Your task to perform on an android device: toggle location history Image 0: 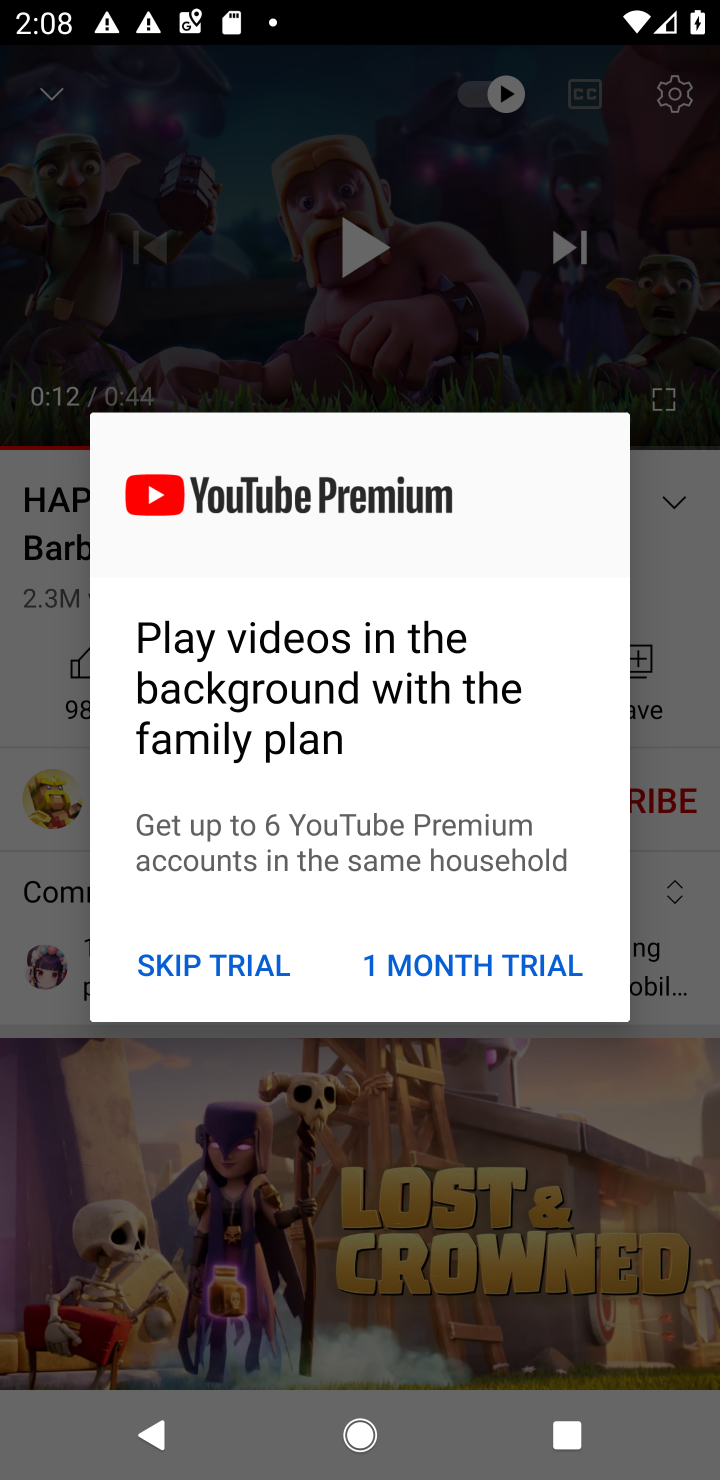
Step 0: press home button
Your task to perform on an android device: toggle location history Image 1: 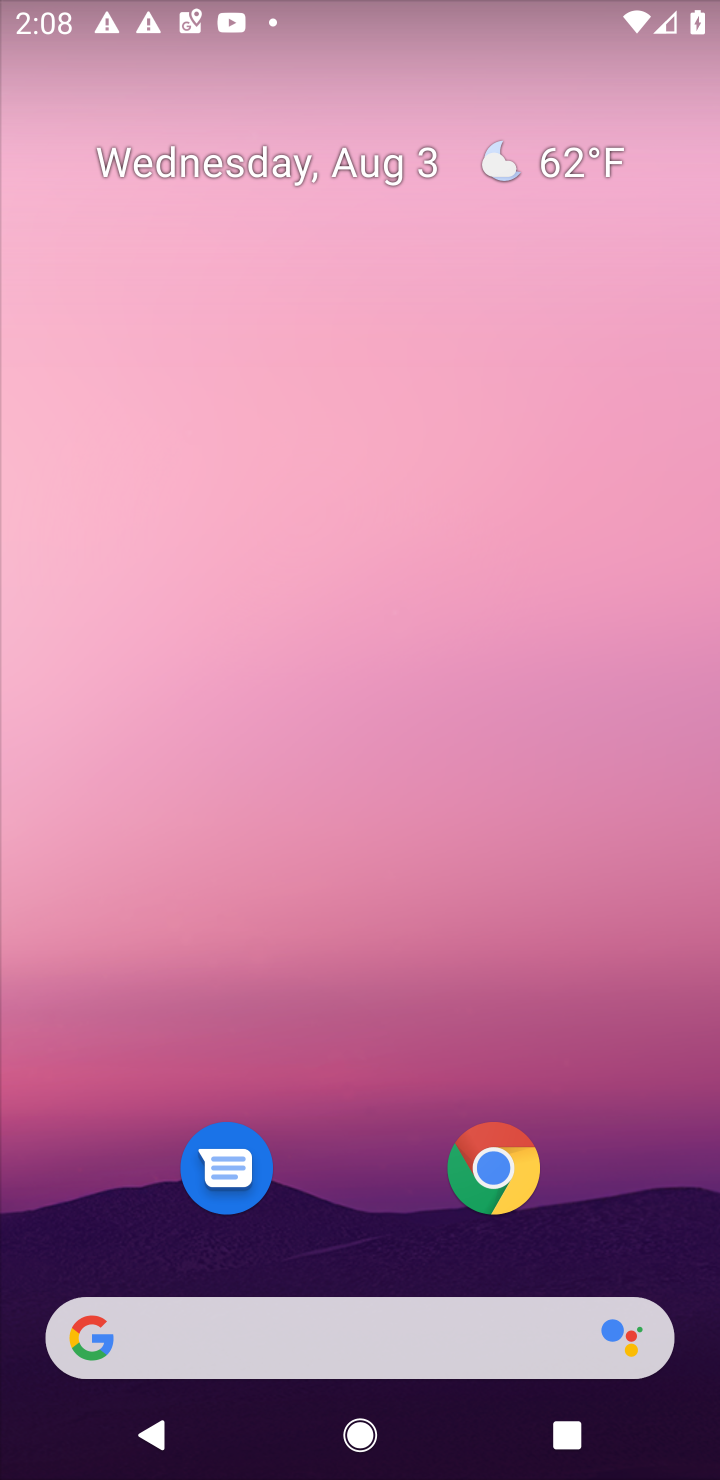
Step 1: drag from (667, 1235) to (602, 266)
Your task to perform on an android device: toggle location history Image 2: 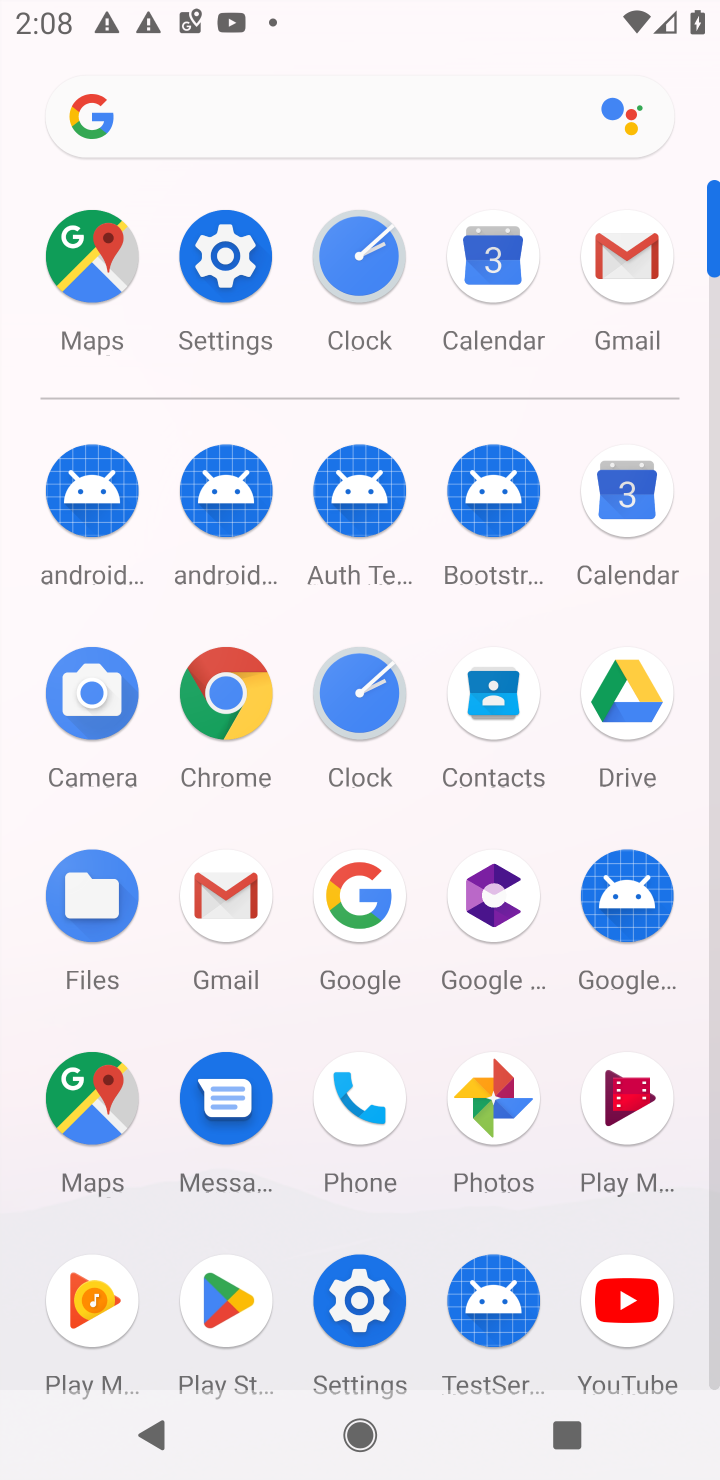
Step 2: click (359, 1298)
Your task to perform on an android device: toggle location history Image 3: 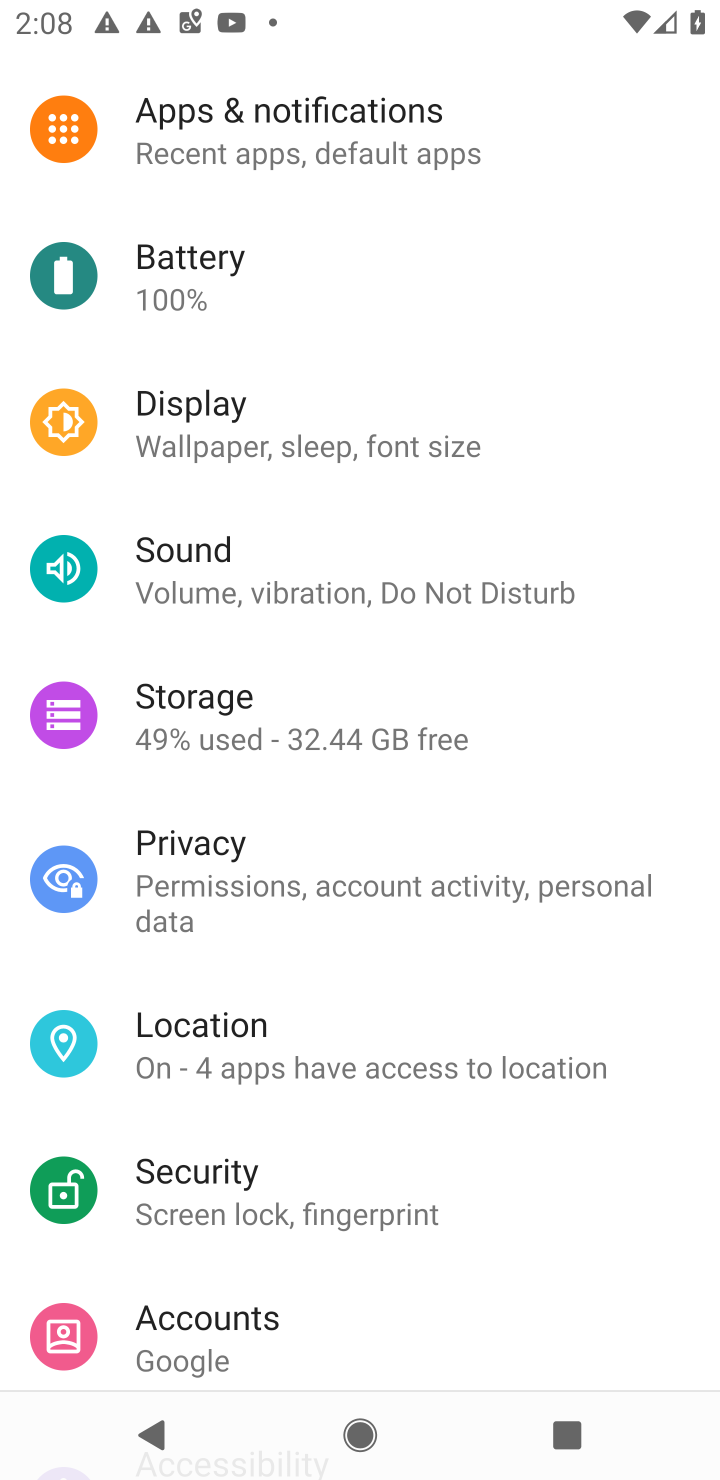
Step 3: click (239, 1039)
Your task to perform on an android device: toggle location history Image 4: 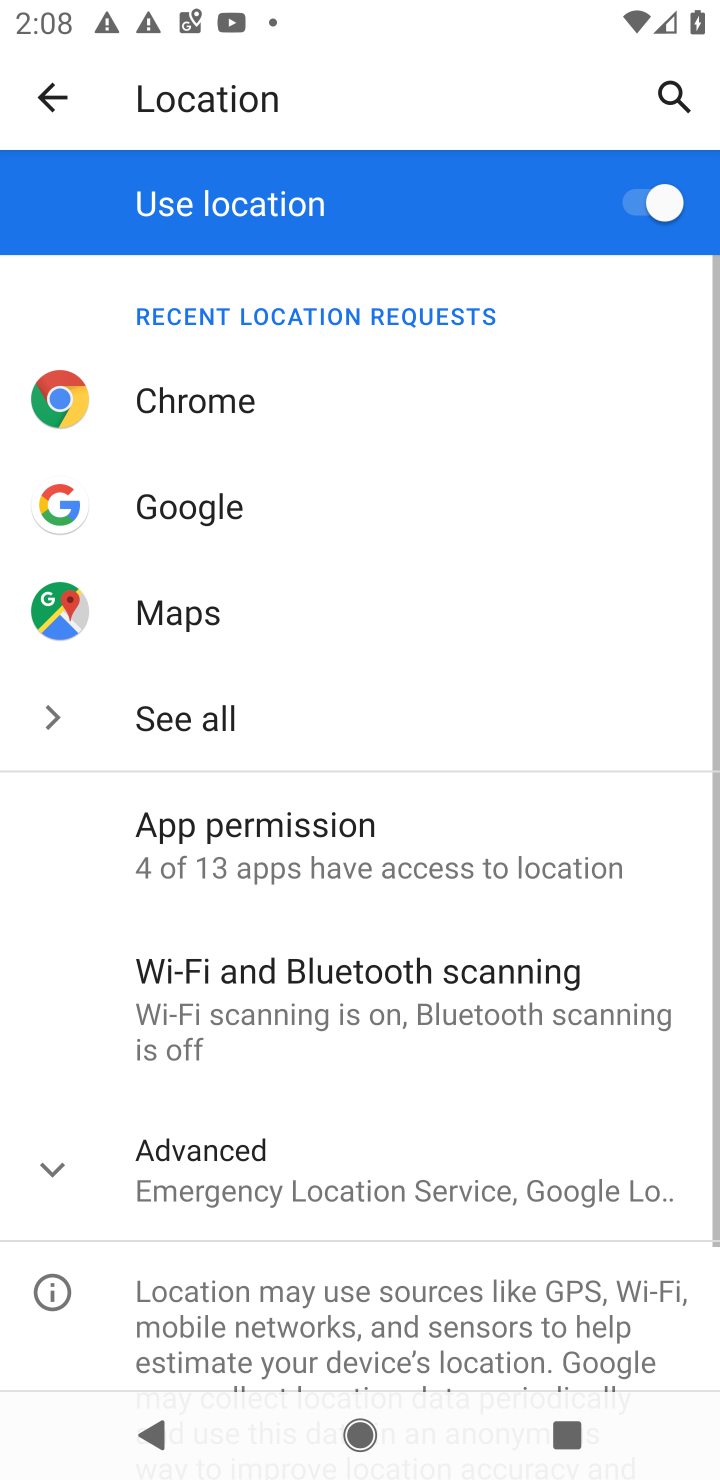
Step 4: click (42, 1169)
Your task to perform on an android device: toggle location history Image 5: 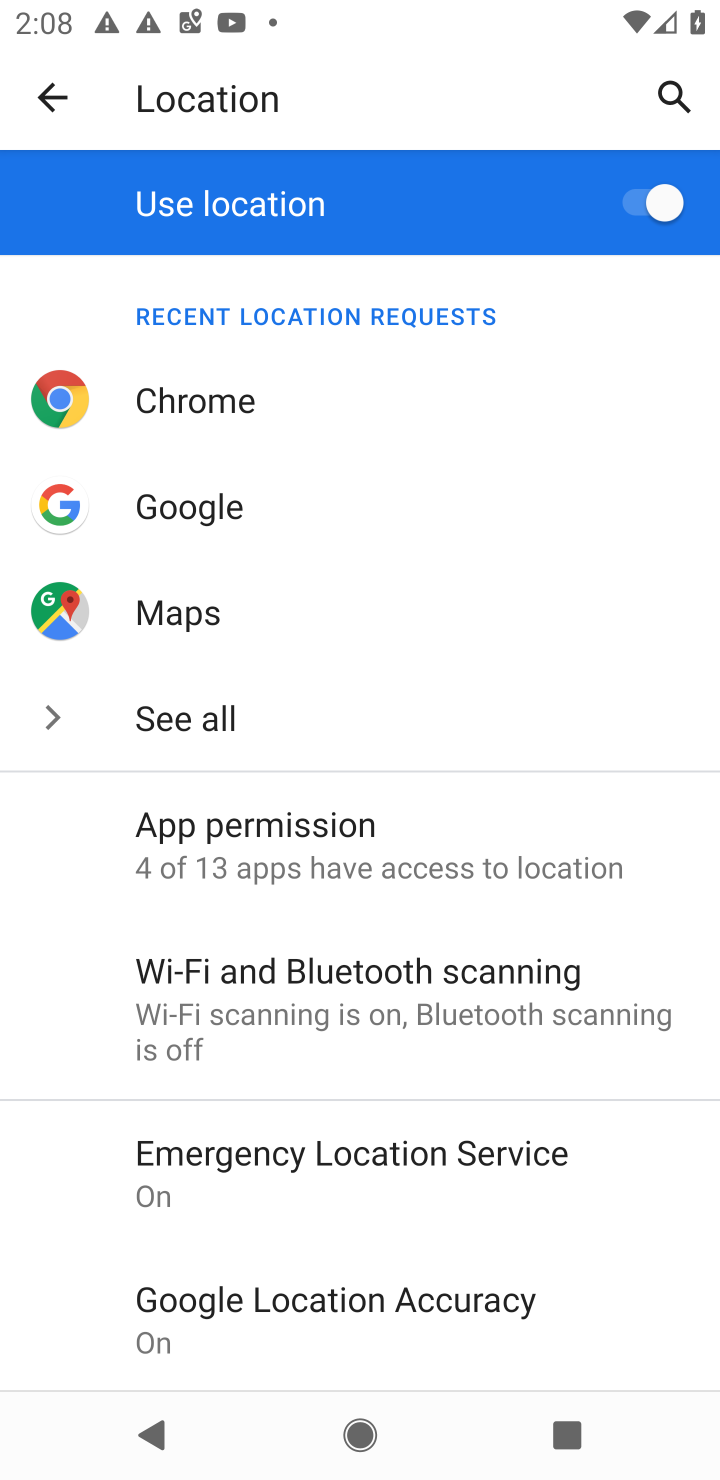
Step 5: drag from (444, 1267) to (487, 631)
Your task to perform on an android device: toggle location history Image 6: 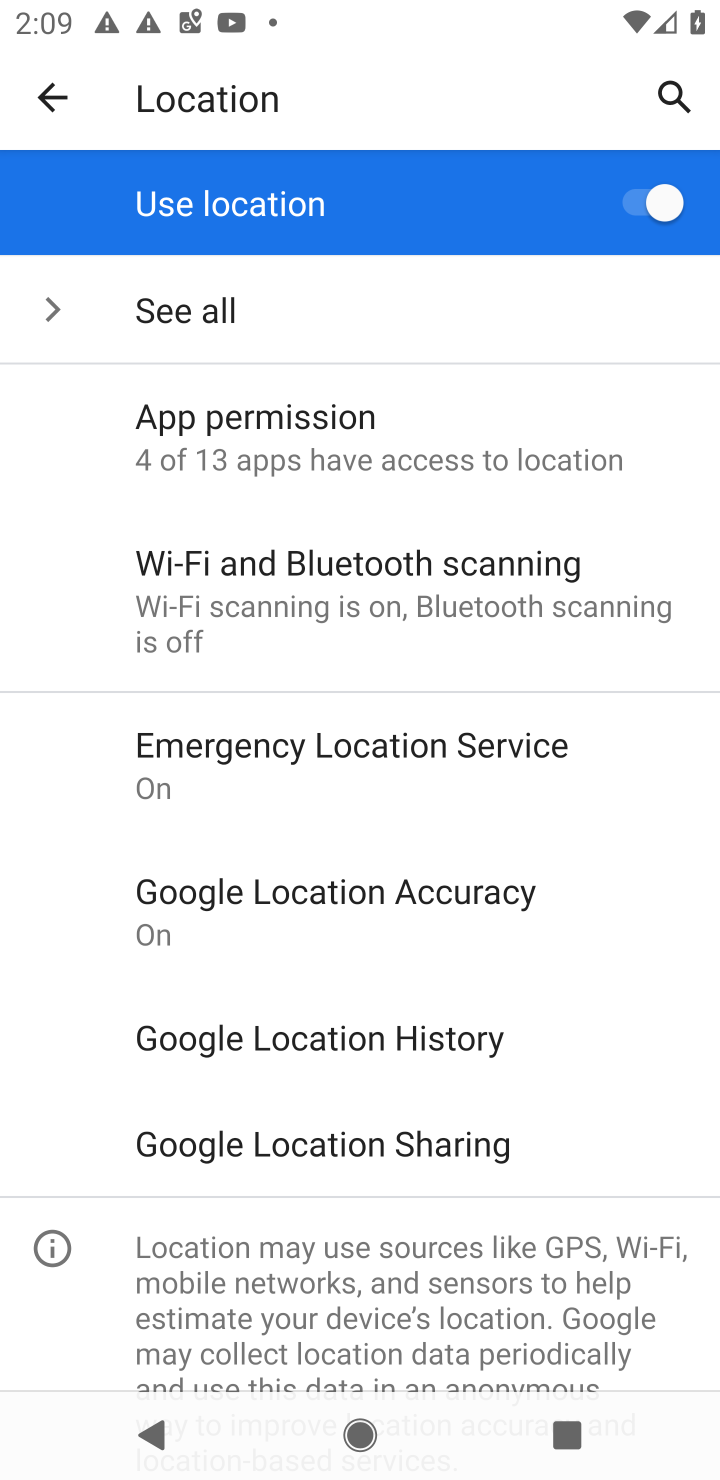
Step 6: click (336, 1038)
Your task to perform on an android device: toggle location history Image 7: 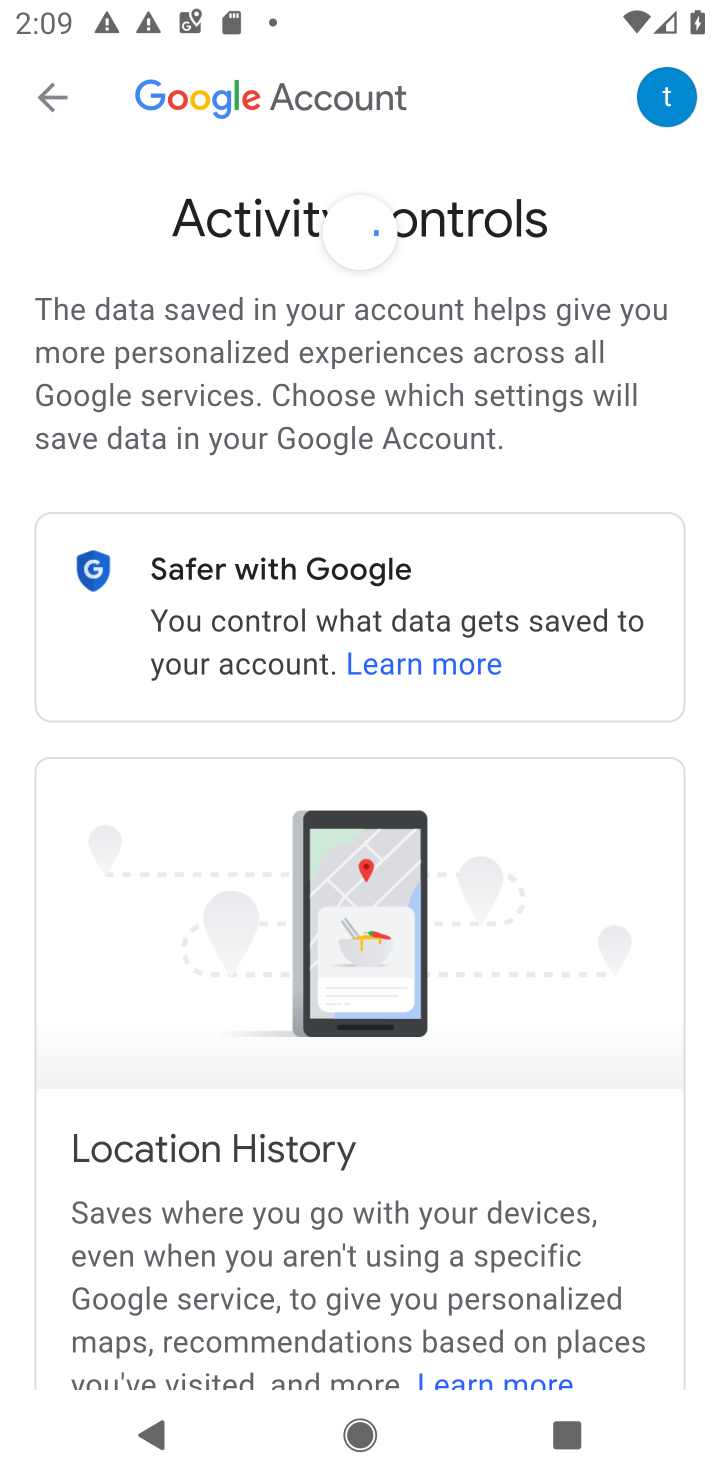
Step 7: drag from (695, 1322) to (689, 563)
Your task to perform on an android device: toggle location history Image 8: 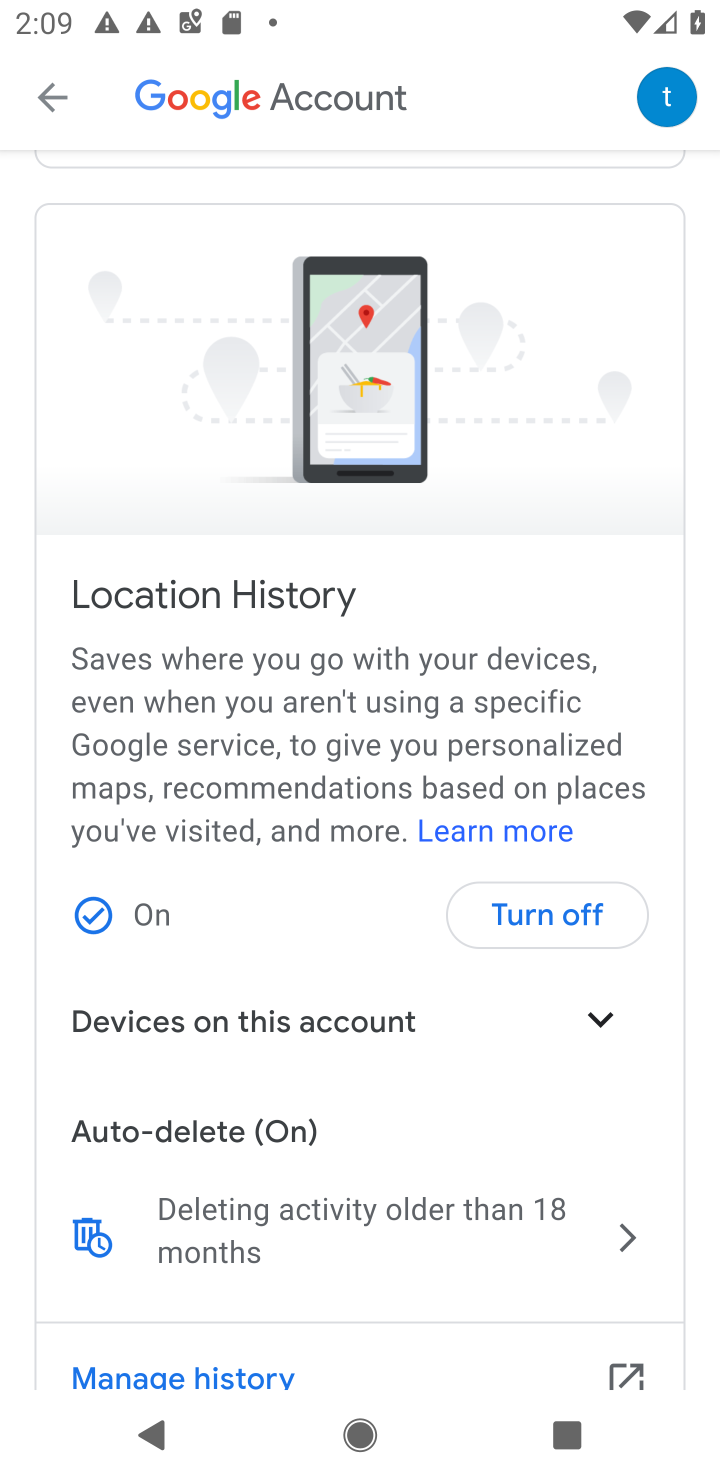
Step 8: click (545, 913)
Your task to perform on an android device: toggle location history Image 9: 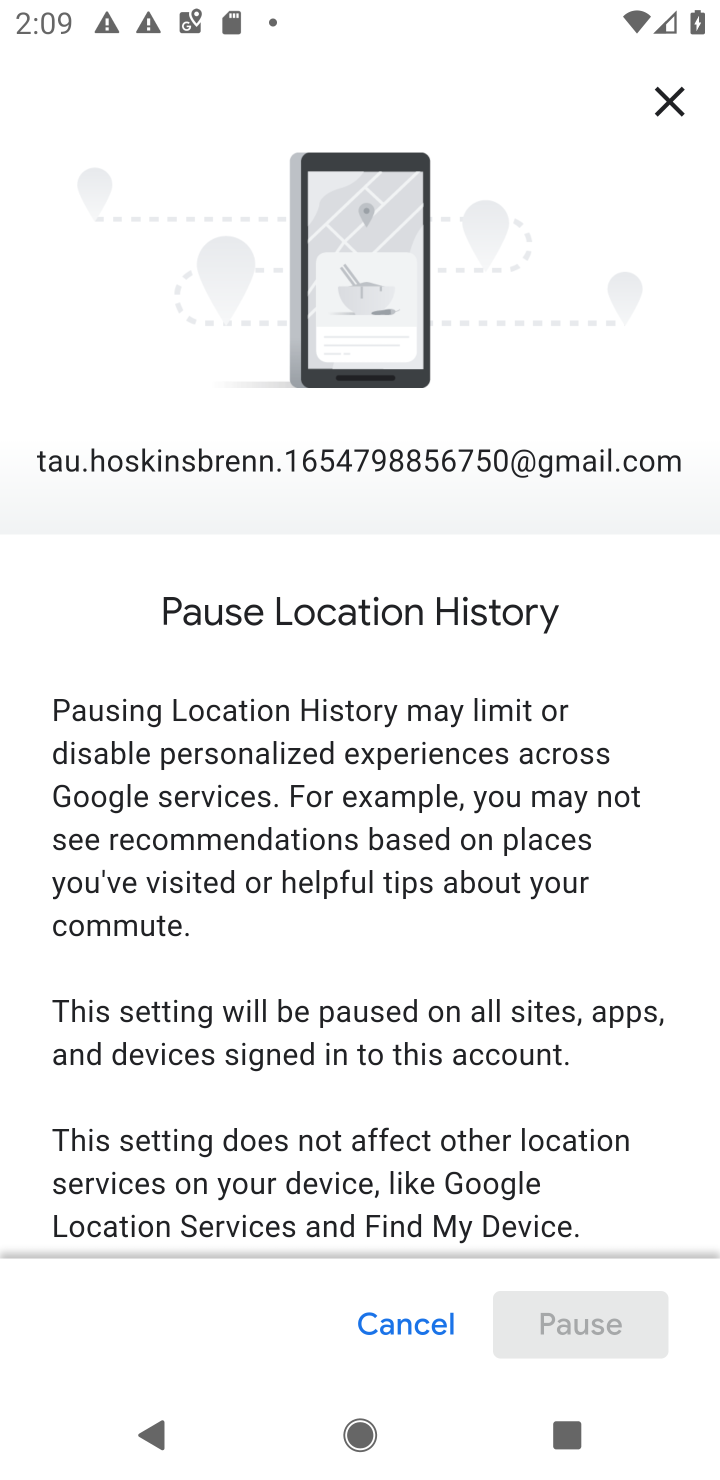
Step 9: drag from (543, 1147) to (530, 374)
Your task to perform on an android device: toggle location history Image 10: 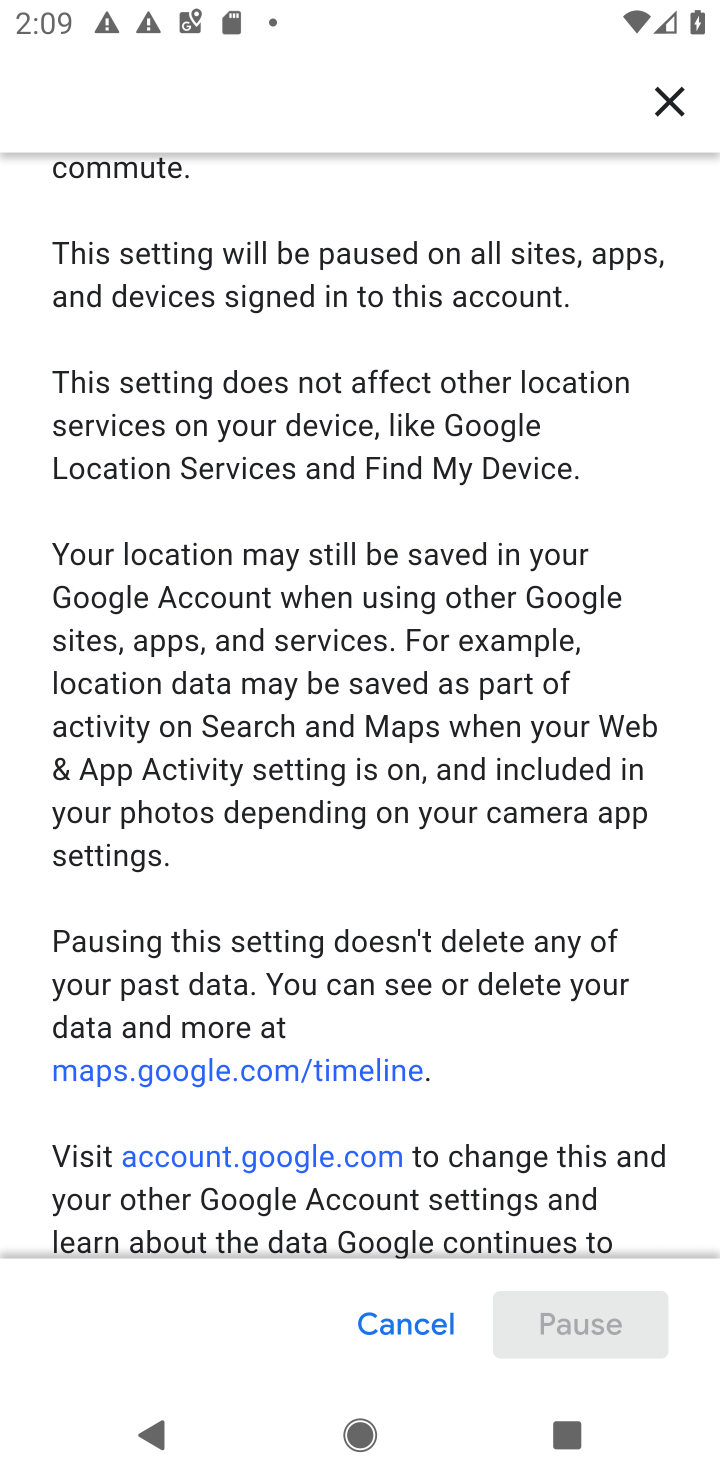
Step 10: drag from (544, 1189) to (502, 283)
Your task to perform on an android device: toggle location history Image 11: 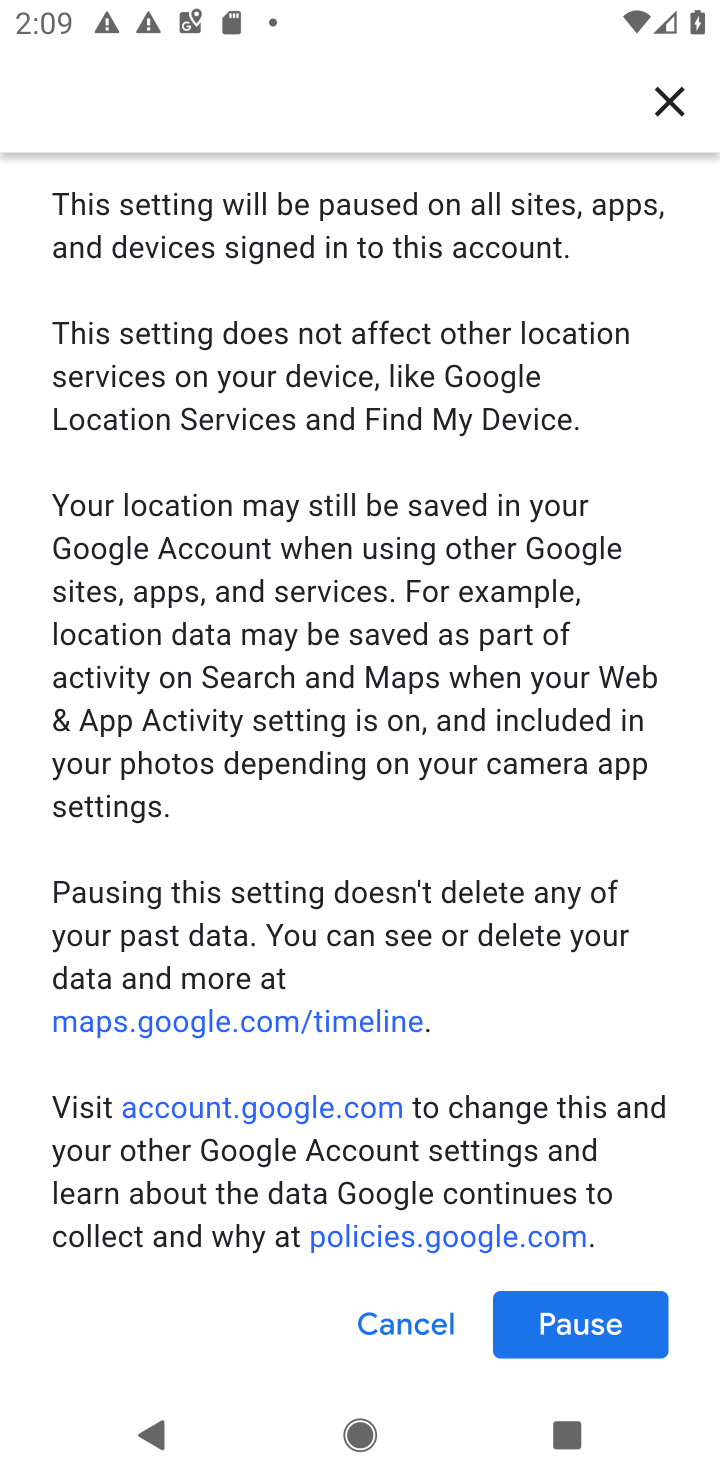
Step 11: click (574, 1334)
Your task to perform on an android device: toggle location history Image 12: 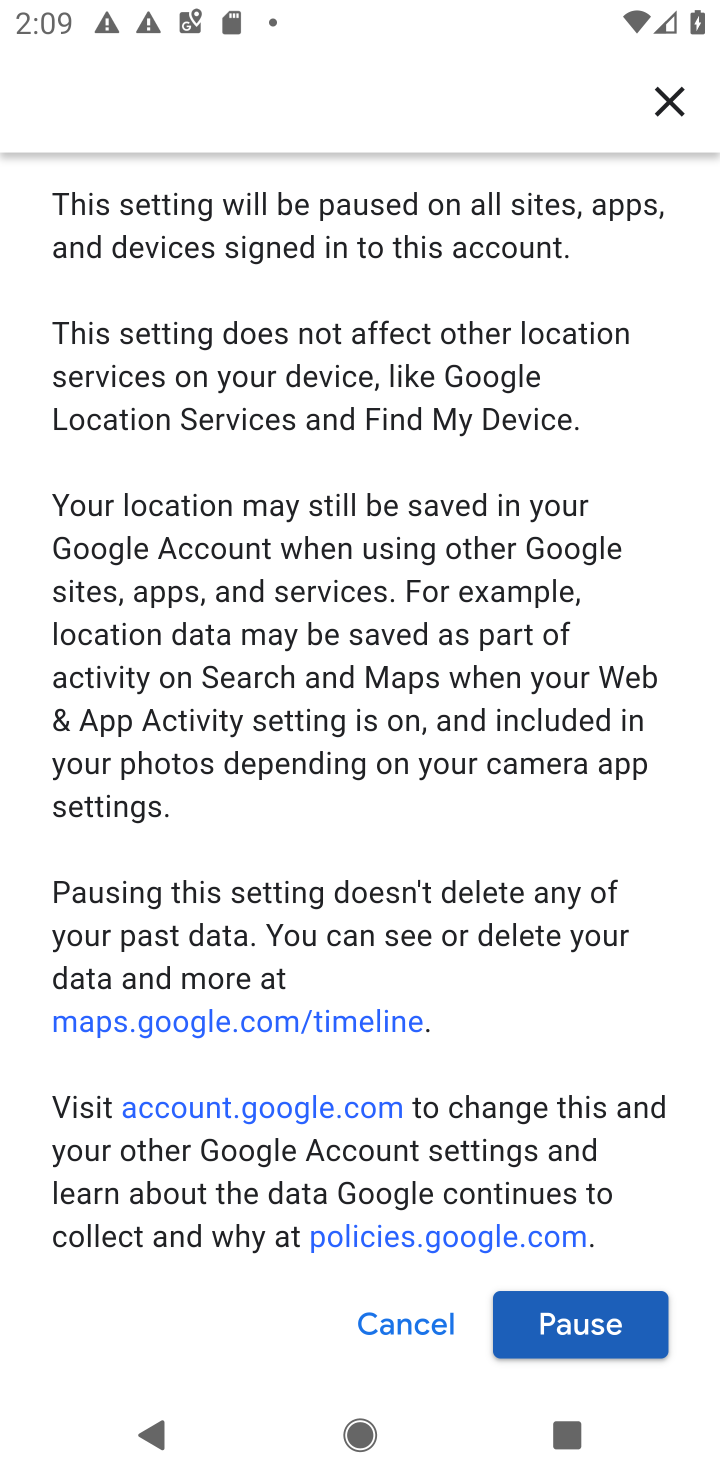
Step 12: click (570, 1321)
Your task to perform on an android device: toggle location history Image 13: 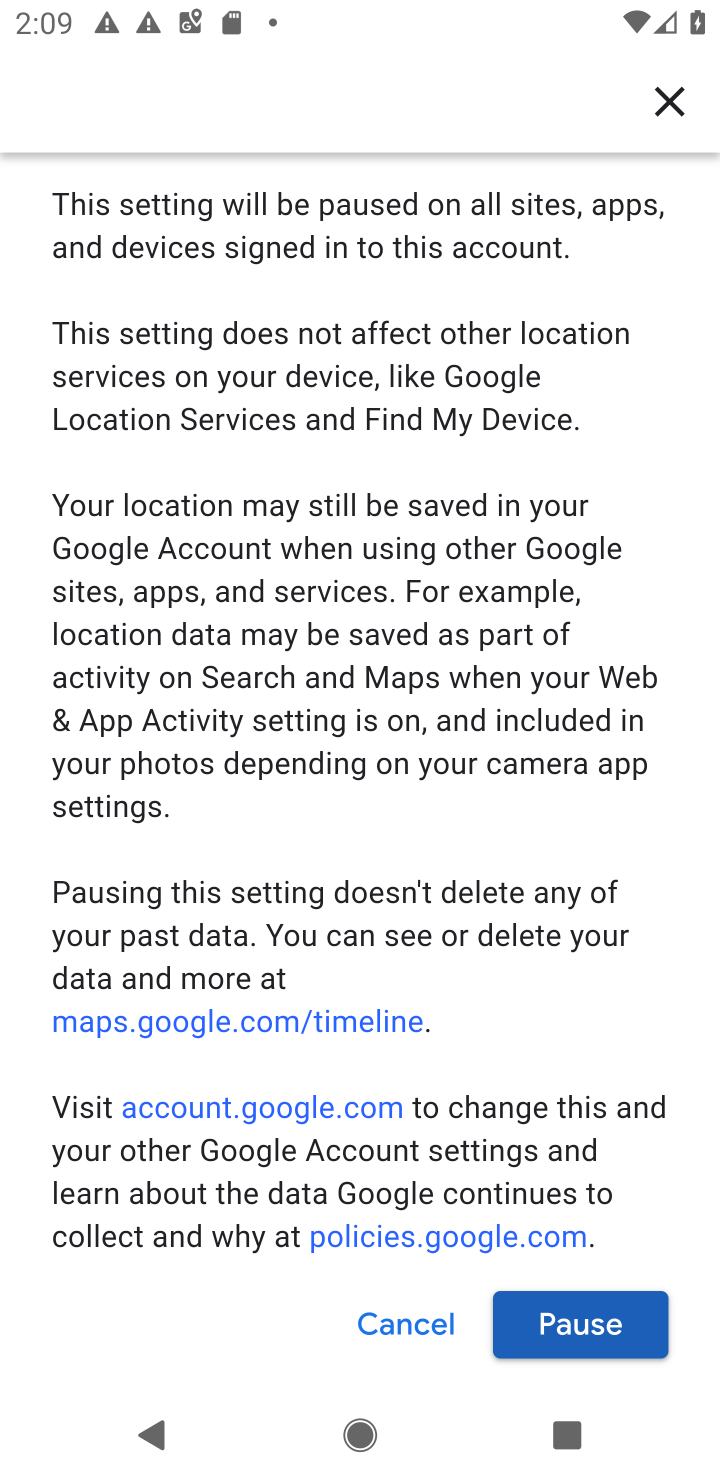
Step 13: click (584, 1321)
Your task to perform on an android device: toggle location history Image 14: 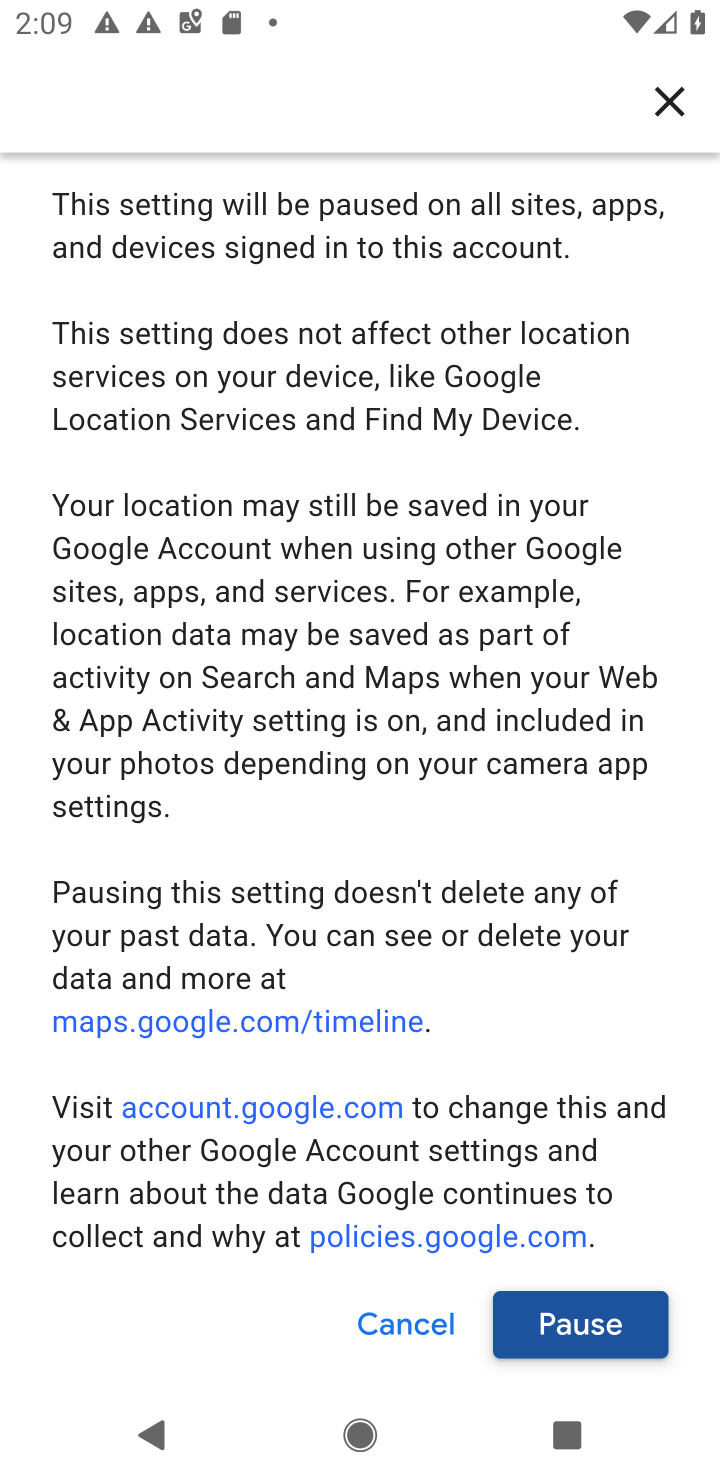
Step 14: drag from (602, 1209) to (518, 315)
Your task to perform on an android device: toggle location history Image 15: 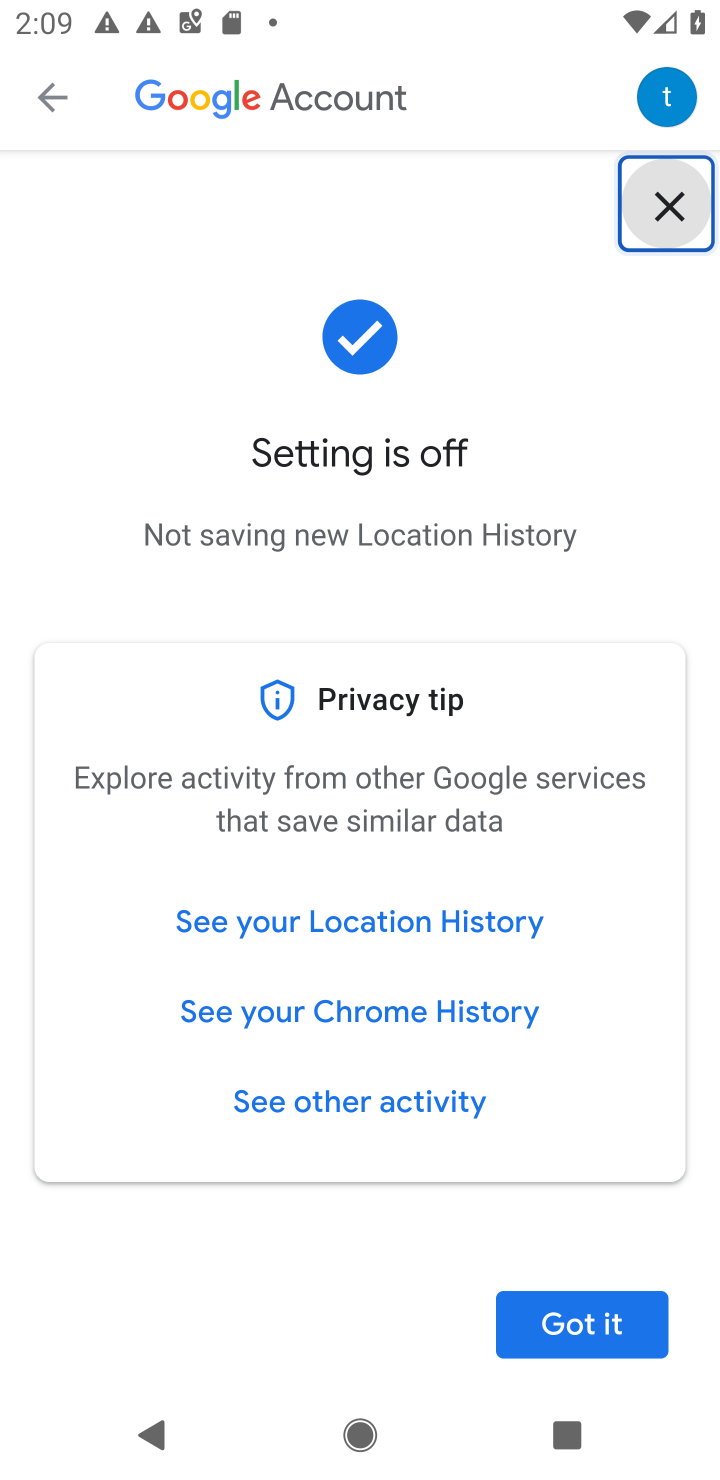
Step 15: click (579, 1326)
Your task to perform on an android device: toggle location history Image 16: 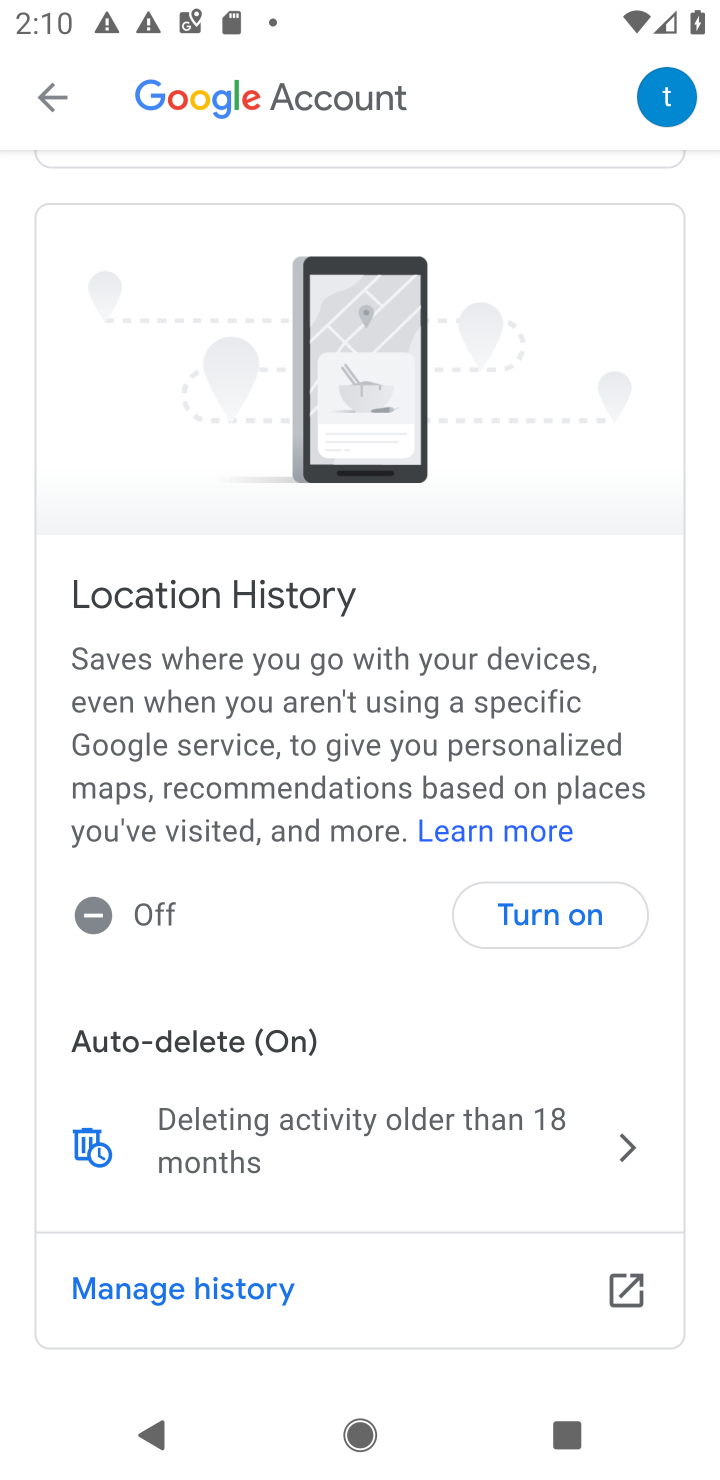
Step 16: task complete